Your task to perform on an android device: clear history in the chrome app Image 0: 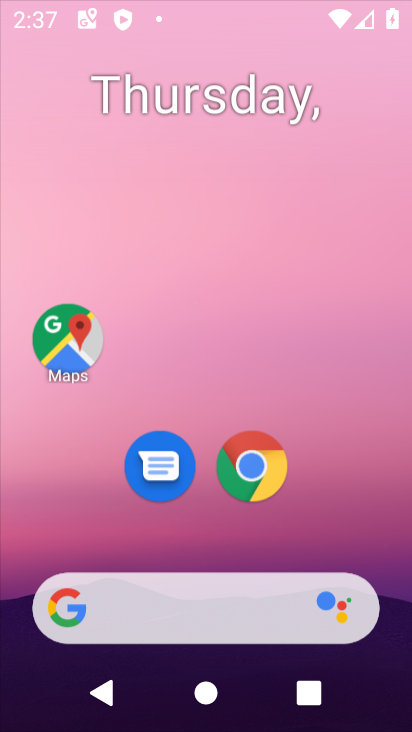
Step 0: click (233, 270)
Your task to perform on an android device: clear history in the chrome app Image 1: 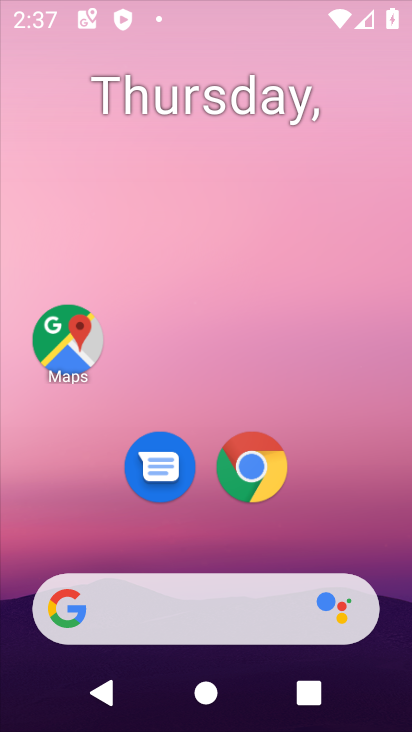
Step 1: drag from (194, 555) to (174, 18)
Your task to perform on an android device: clear history in the chrome app Image 2: 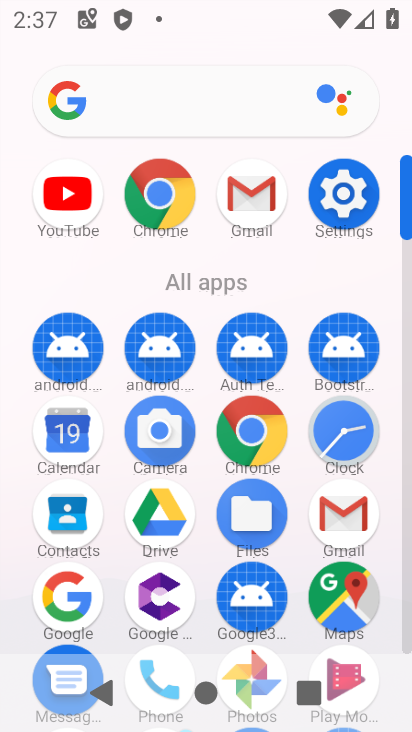
Step 2: click (254, 445)
Your task to perform on an android device: clear history in the chrome app Image 3: 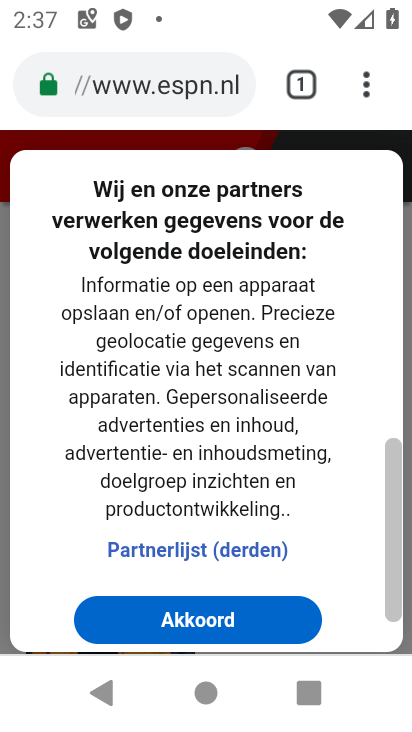
Step 3: drag from (229, 581) to (261, 345)
Your task to perform on an android device: clear history in the chrome app Image 4: 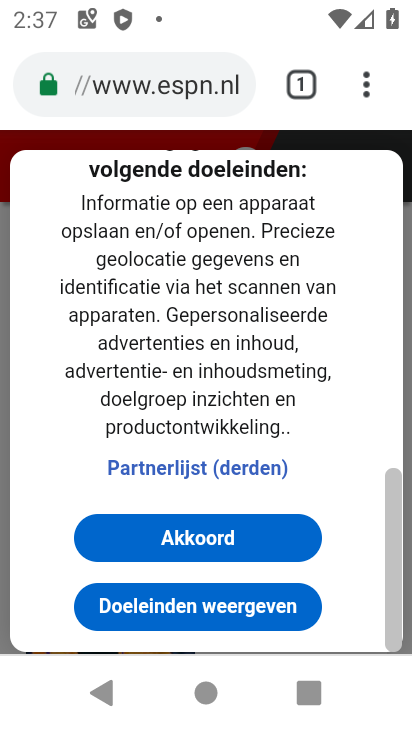
Step 4: drag from (336, 581) to (332, 324)
Your task to perform on an android device: clear history in the chrome app Image 5: 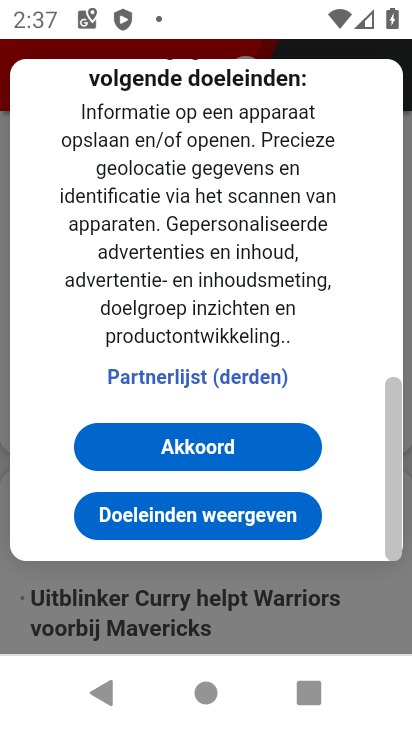
Step 5: drag from (320, 297) to (387, 727)
Your task to perform on an android device: clear history in the chrome app Image 6: 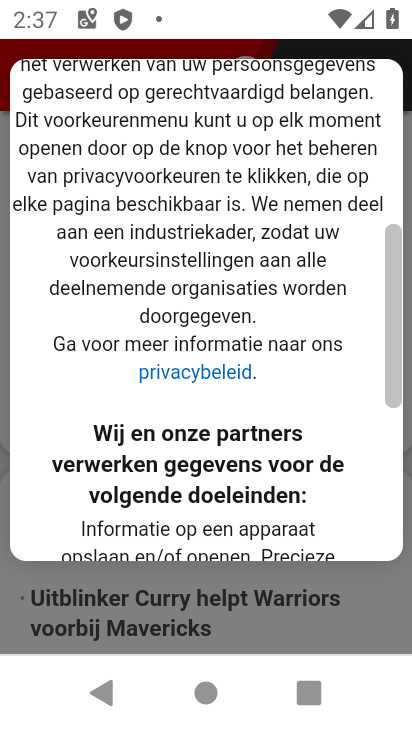
Step 6: drag from (352, 172) to (314, 678)
Your task to perform on an android device: clear history in the chrome app Image 7: 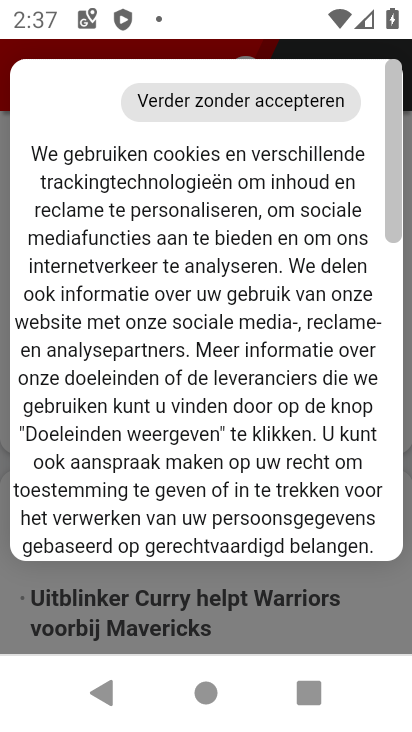
Step 7: drag from (364, 130) to (318, 702)
Your task to perform on an android device: clear history in the chrome app Image 8: 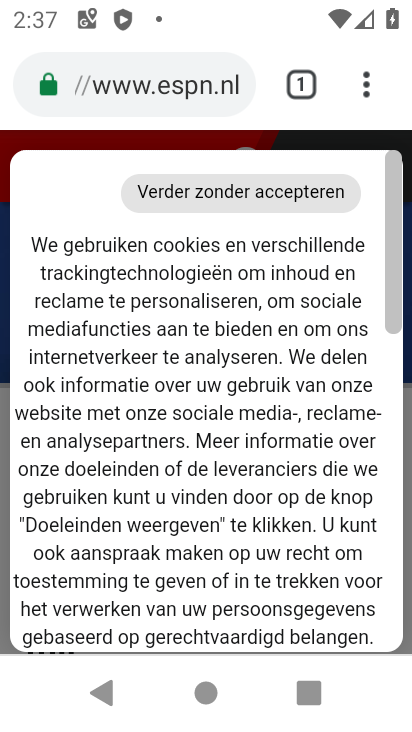
Step 8: click (360, 87)
Your task to perform on an android device: clear history in the chrome app Image 9: 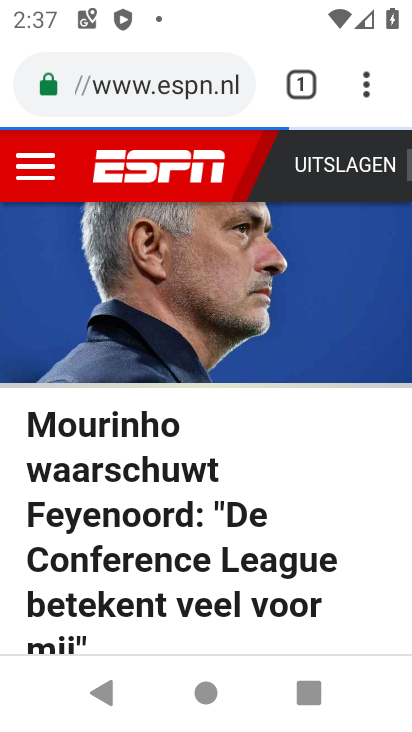
Step 9: click (367, 84)
Your task to perform on an android device: clear history in the chrome app Image 10: 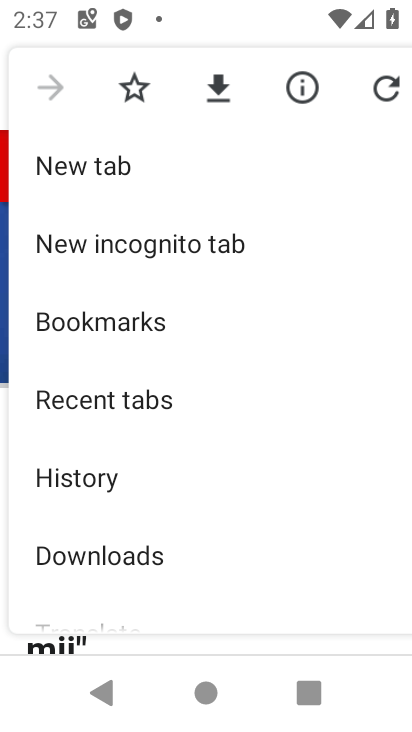
Step 10: drag from (132, 569) to (192, 300)
Your task to perform on an android device: clear history in the chrome app Image 11: 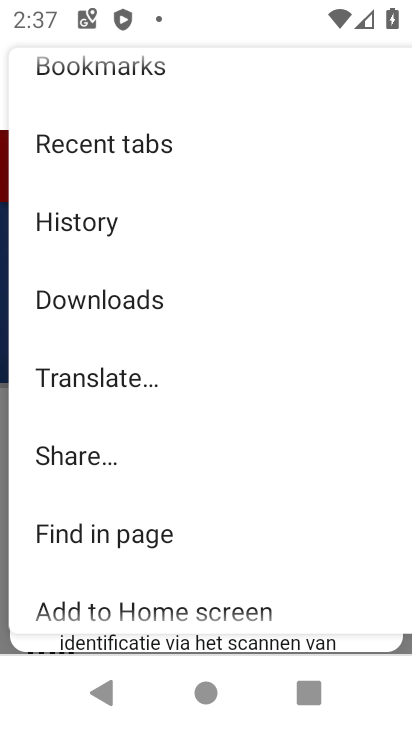
Step 11: click (109, 214)
Your task to perform on an android device: clear history in the chrome app Image 12: 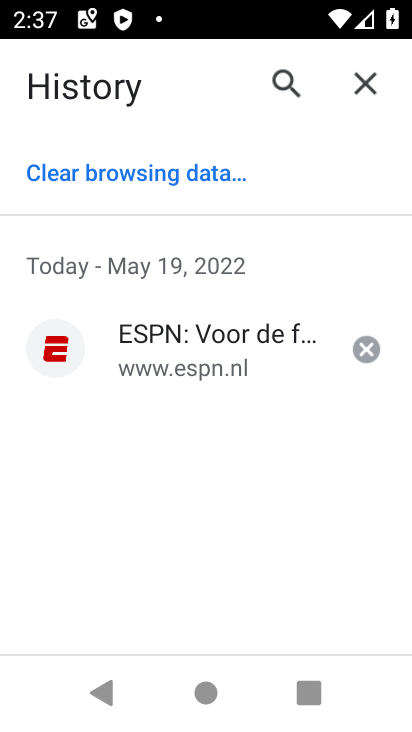
Step 12: click (96, 162)
Your task to perform on an android device: clear history in the chrome app Image 13: 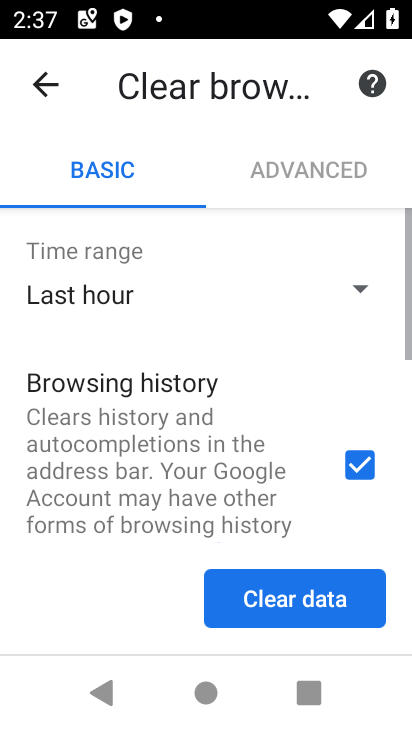
Step 13: click (286, 587)
Your task to perform on an android device: clear history in the chrome app Image 14: 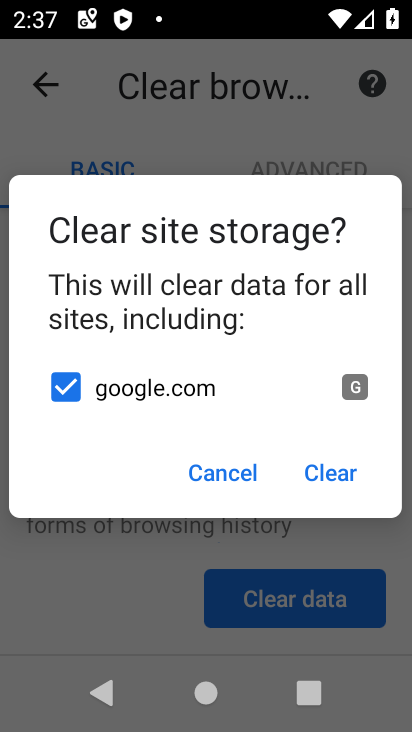
Step 14: click (327, 466)
Your task to perform on an android device: clear history in the chrome app Image 15: 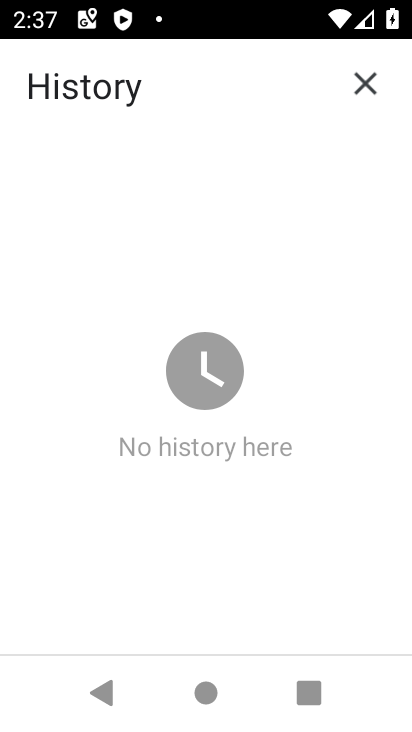
Step 15: task complete